Your task to perform on an android device: turn on airplane mode Image 0: 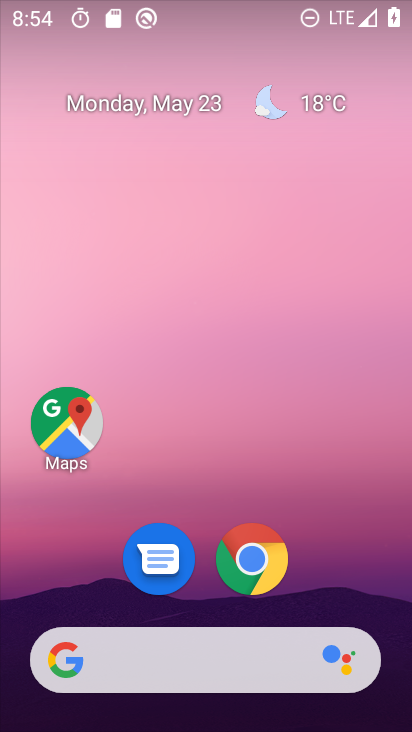
Step 0: drag from (246, 8) to (275, 478)
Your task to perform on an android device: turn on airplane mode Image 1: 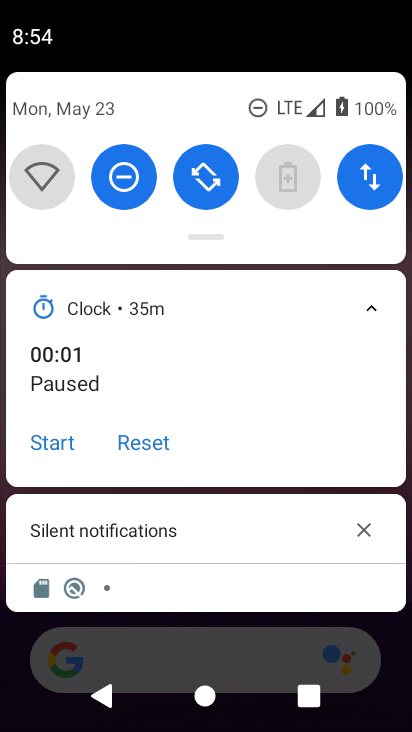
Step 1: drag from (186, 227) to (238, 533)
Your task to perform on an android device: turn on airplane mode Image 2: 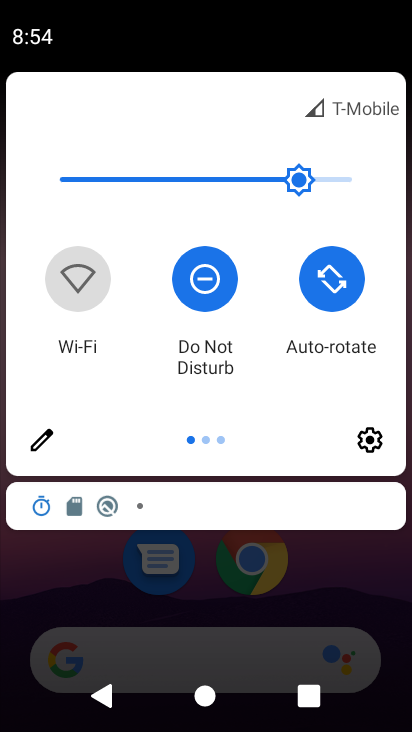
Step 2: drag from (362, 373) to (118, 337)
Your task to perform on an android device: turn on airplane mode Image 3: 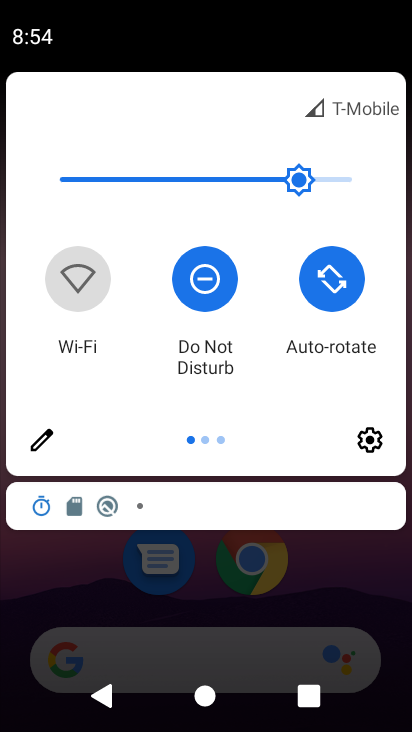
Step 3: drag from (386, 346) to (55, 350)
Your task to perform on an android device: turn on airplane mode Image 4: 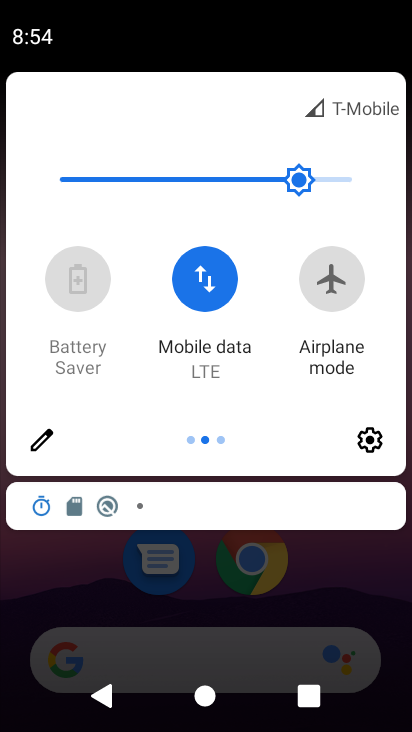
Step 4: click (323, 259)
Your task to perform on an android device: turn on airplane mode Image 5: 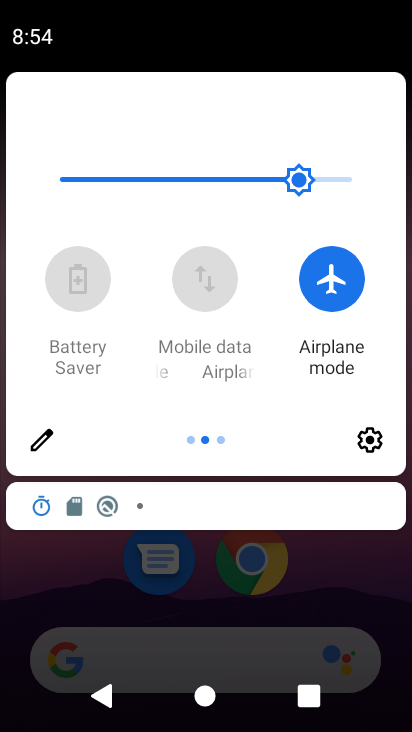
Step 5: task complete